Your task to perform on an android device: open app "Pinterest" (install if not already installed), go to login, and select forgot password Image 0: 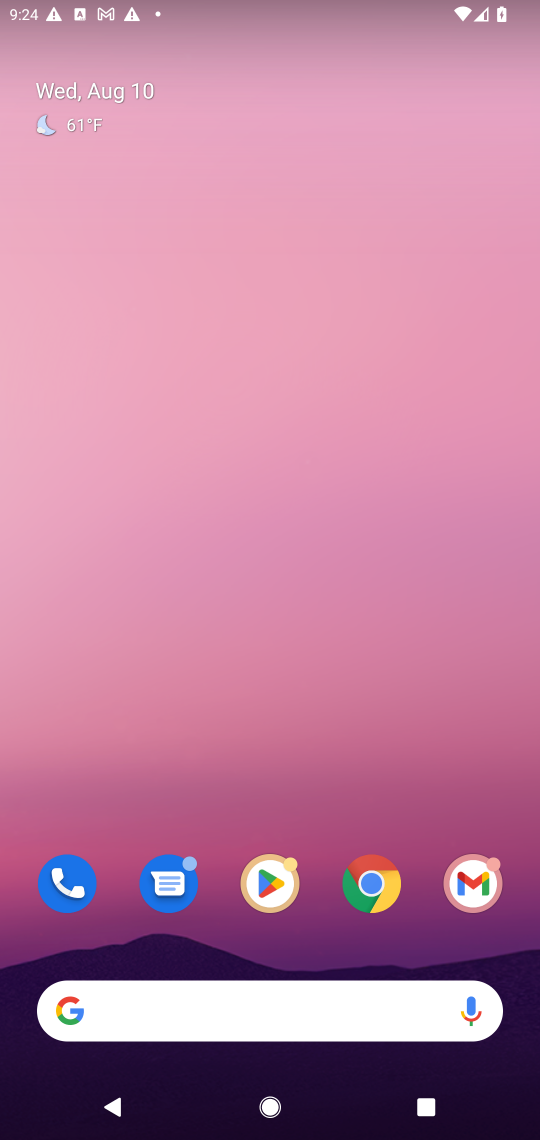
Step 0: click (269, 862)
Your task to perform on an android device: open app "Pinterest" (install if not already installed), go to login, and select forgot password Image 1: 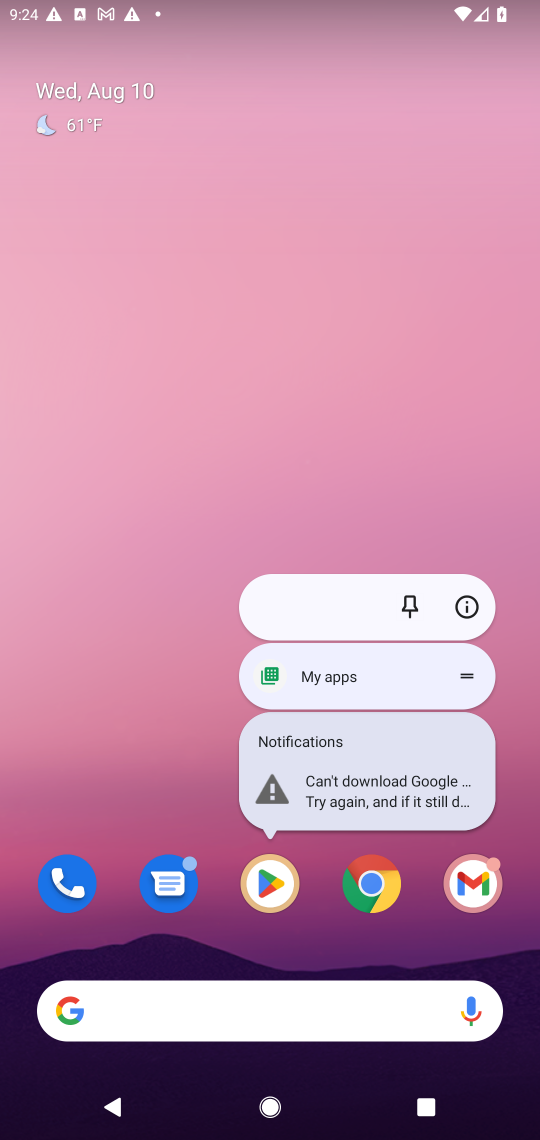
Step 1: click (269, 890)
Your task to perform on an android device: open app "Pinterest" (install if not already installed), go to login, and select forgot password Image 2: 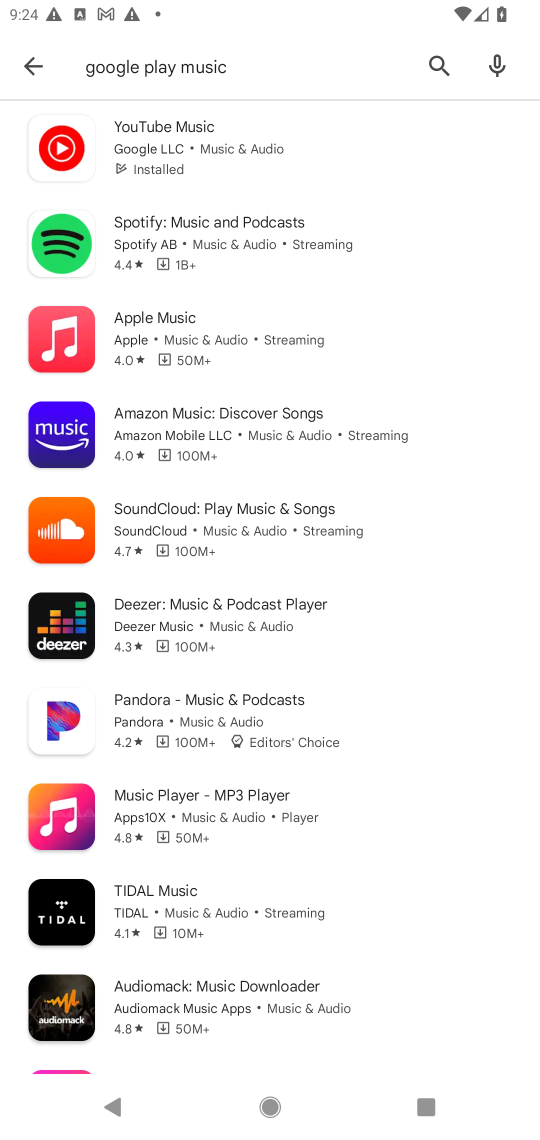
Step 2: click (437, 60)
Your task to perform on an android device: open app "Pinterest" (install if not already installed), go to login, and select forgot password Image 3: 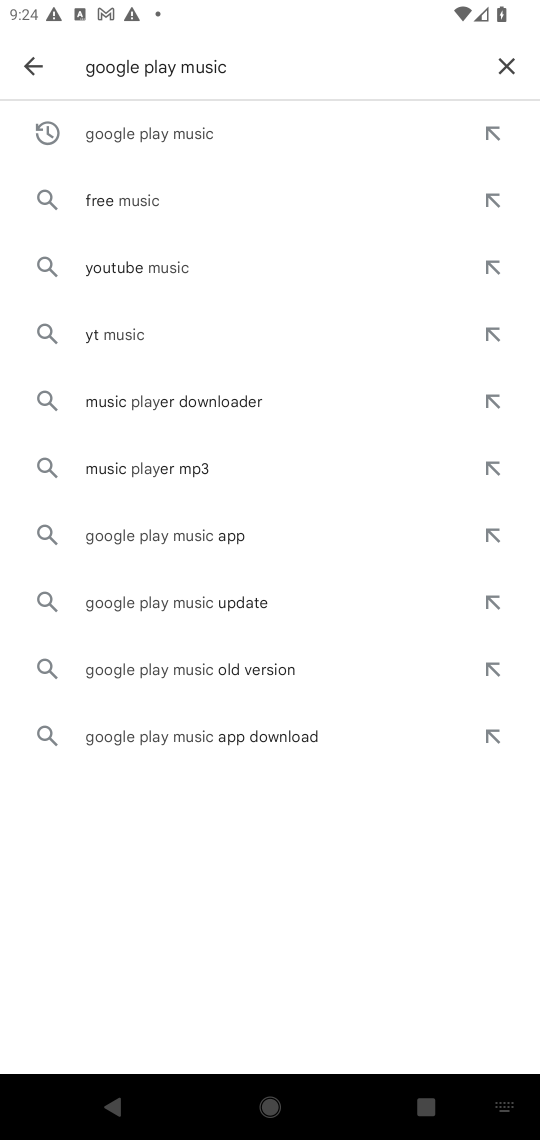
Step 3: click (445, 61)
Your task to perform on an android device: open app "Pinterest" (install if not already installed), go to login, and select forgot password Image 4: 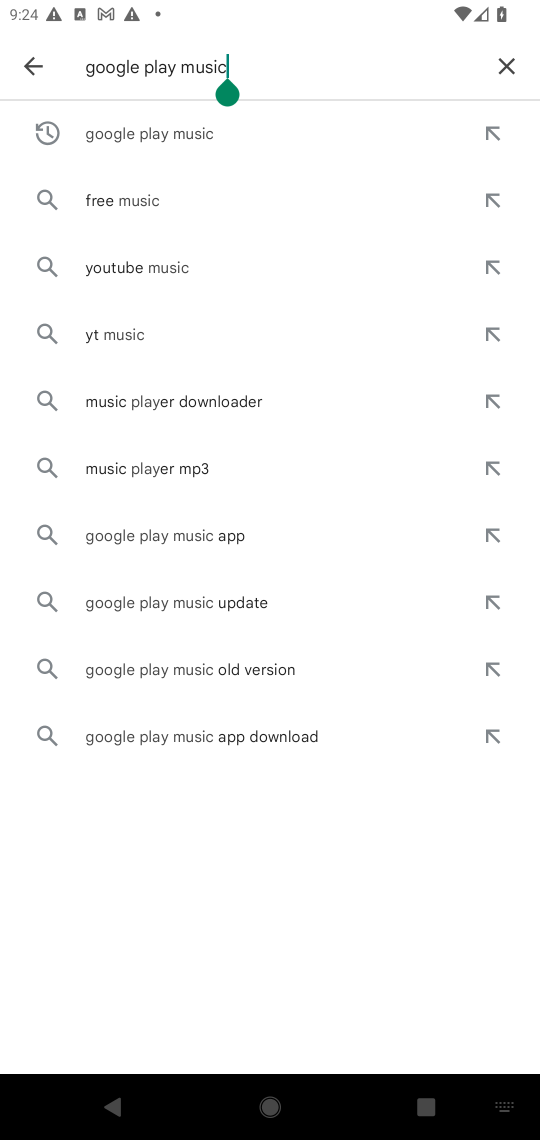
Step 4: click (502, 74)
Your task to perform on an android device: open app "Pinterest" (install if not already installed), go to login, and select forgot password Image 5: 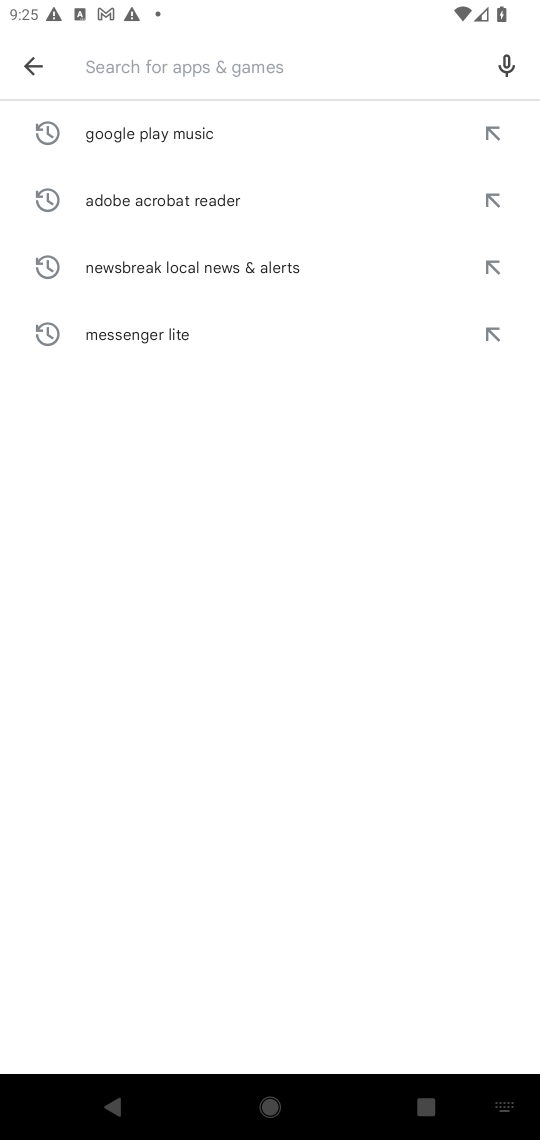
Step 5: type "Pinterest"
Your task to perform on an android device: open app "Pinterest" (install if not already installed), go to login, and select forgot password Image 6: 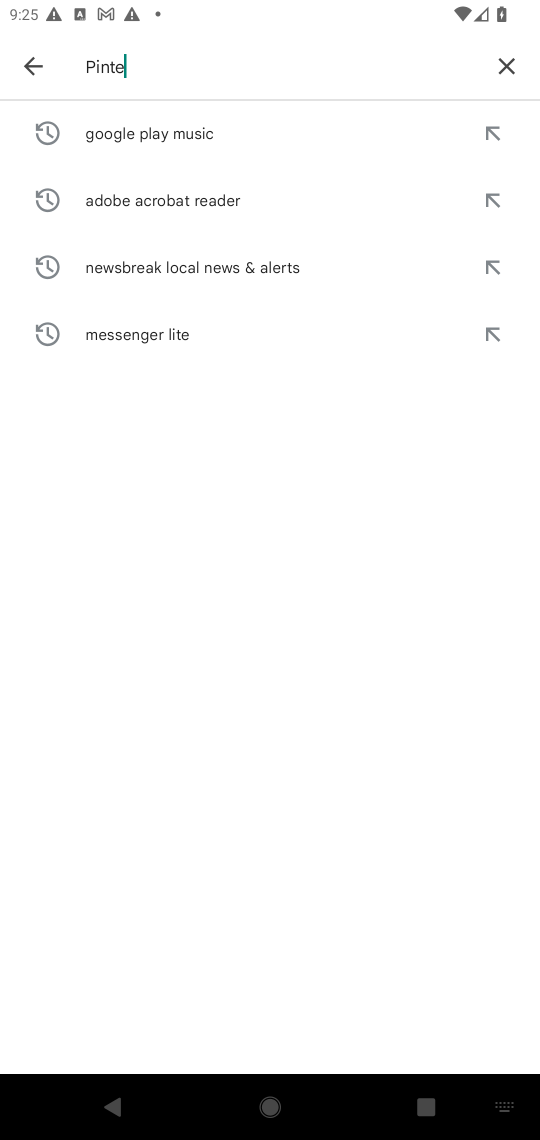
Step 6: type ""
Your task to perform on an android device: open app "Pinterest" (install if not already installed), go to login, and select forgot password Image 7: 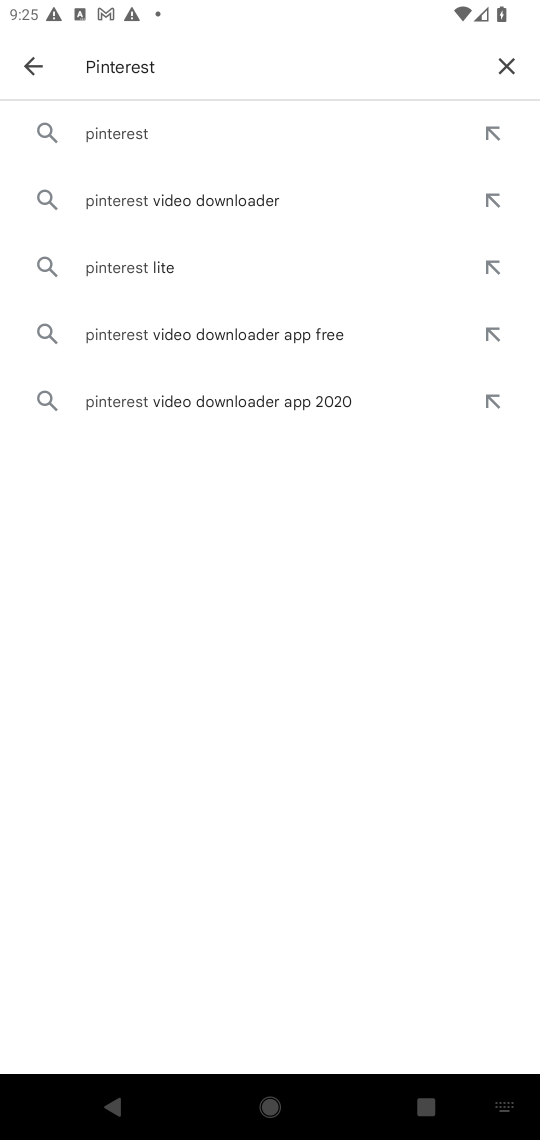
Step 7: click (215, 134)
Your task to perform on an android device: open app "Pinterest" (install if not already installed), go to login, and select forgot password Image 8: 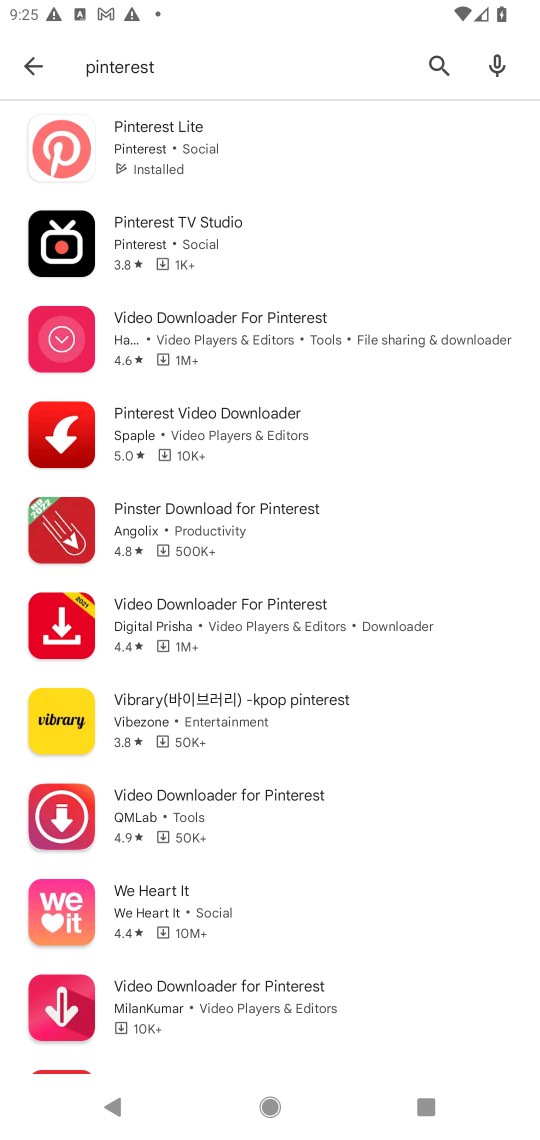
Step 8: click (208, 151)
Your task to perform on an android device: open app "Pinterest" (install if not already installed), go to login, and select forgot password Image 9: 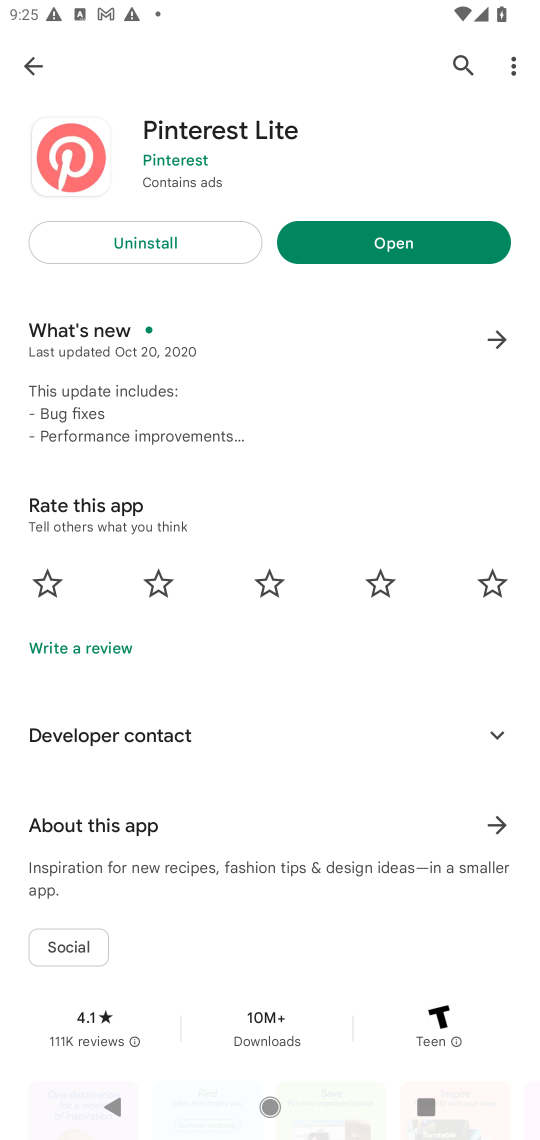
Step 9: click (401, 247)
Your task to perform on an android device: open app "Pinterest" (install if not already installed), go to login, and select forgot password Image 10: 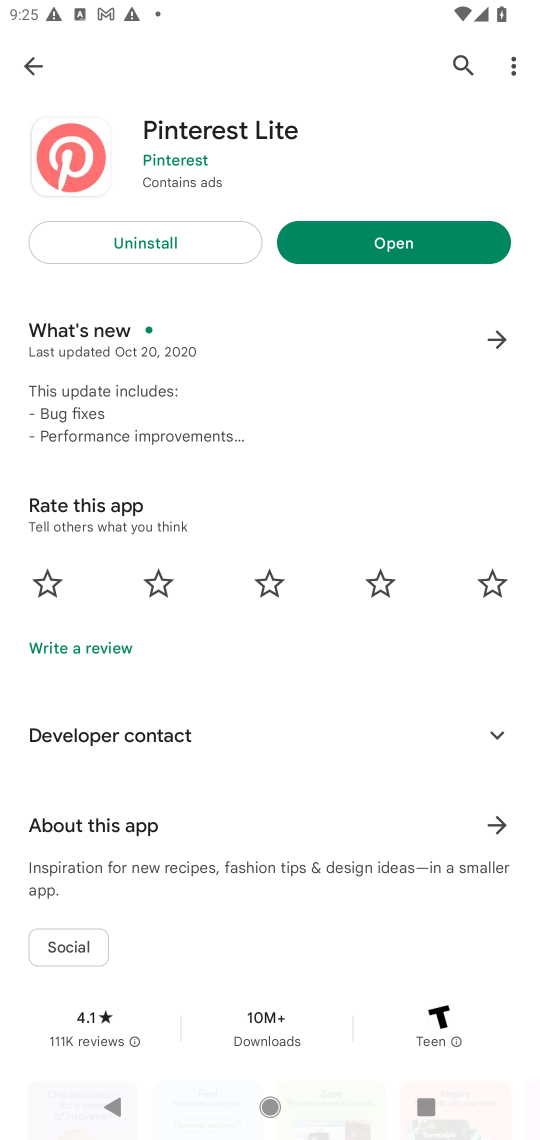
Step 10: click (401, 247)
Your task to perform on an android device: open app "Pinterest" (install if not already installed), go to login, and select forgot password Image 11: 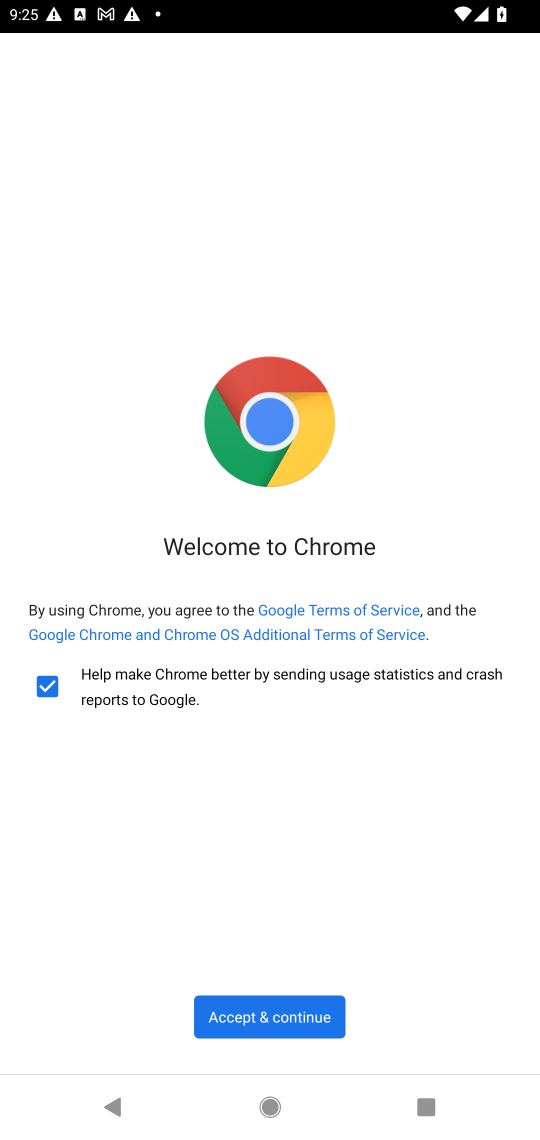
Step 11: task complete